Your task to perform on an android device: Open calendar and show me the fourth week of next month Image 0: 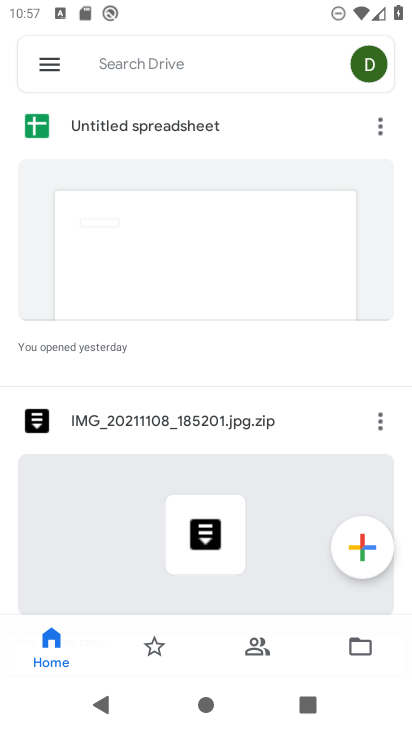
Step 0: press home button
Your task to perform on an android device: Open calendar and show me the fourth week of next month Image 1: 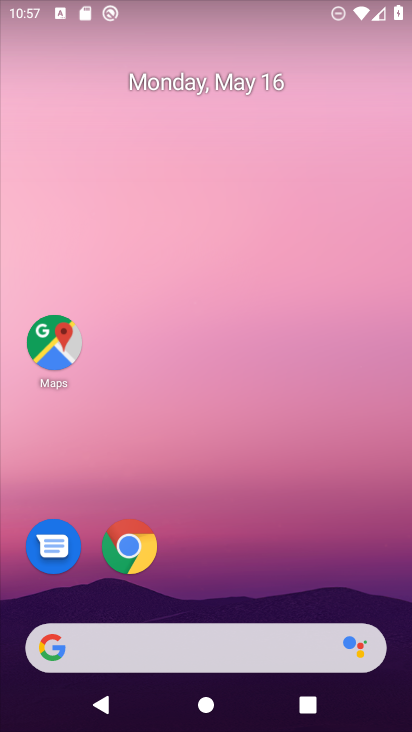
Step 1: click (239, 86)
Your task to perform on an android device: Open calendar and show me the fourth week of next month Image 2: 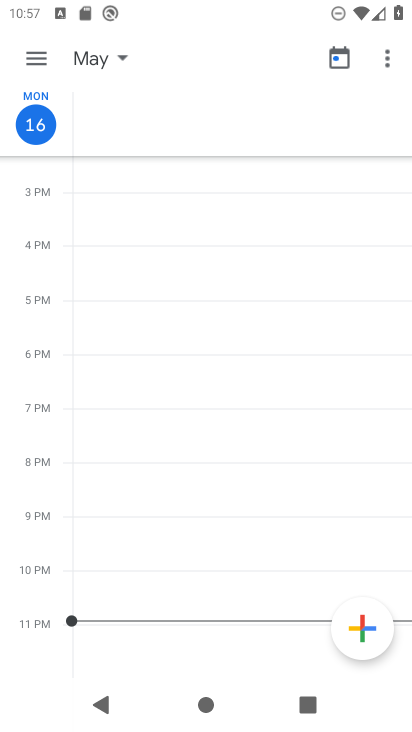
Step 2: click (90, 62)
Your task to perform on an android device: Open calendar and show me the fourth week of next month Image 3: 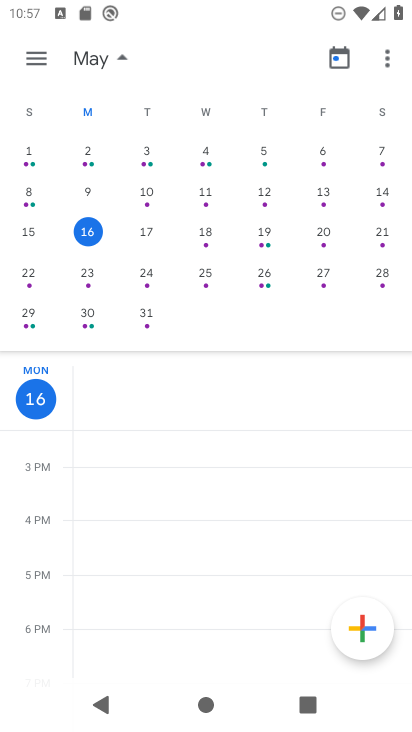
Step 3: drag from (396, 292) to (93, 301)
Your task to perform on an android device: Open calendar and show me the fourth week of next month Image 4: 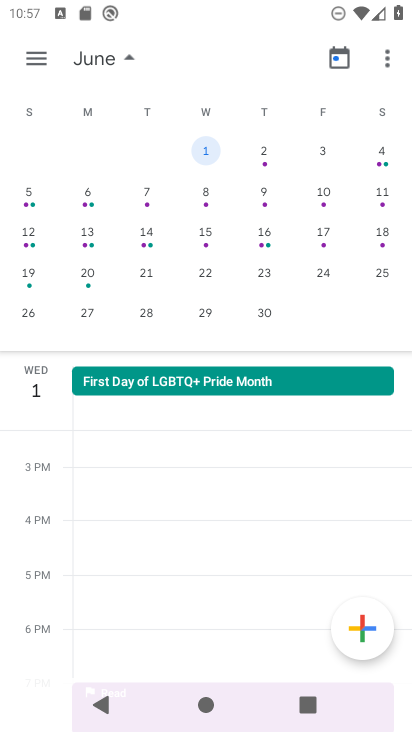
Step 4: click (207, 272)
Your task to perform on an android device: Open calendar and show me the fourth week of next month Image 5: 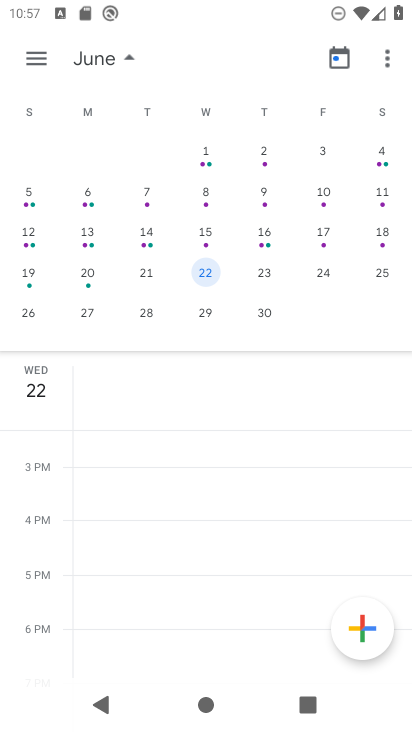
Step 5: task complete